Your task to perform on an android device: Go to internet settings Image 0: 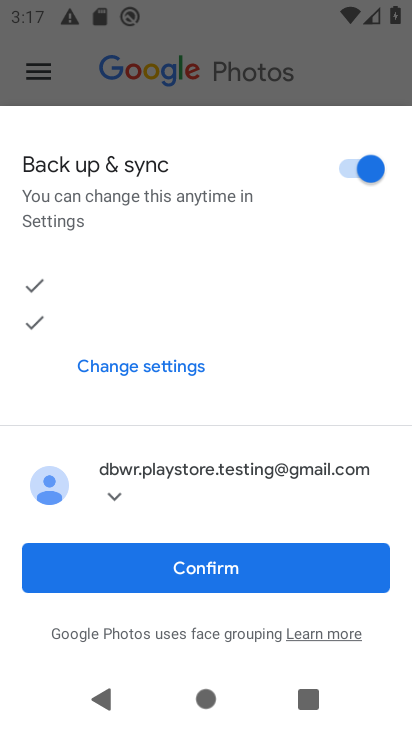
Step 0: press back button
Your task to perform on an android device: Go to internet settings Image 1: 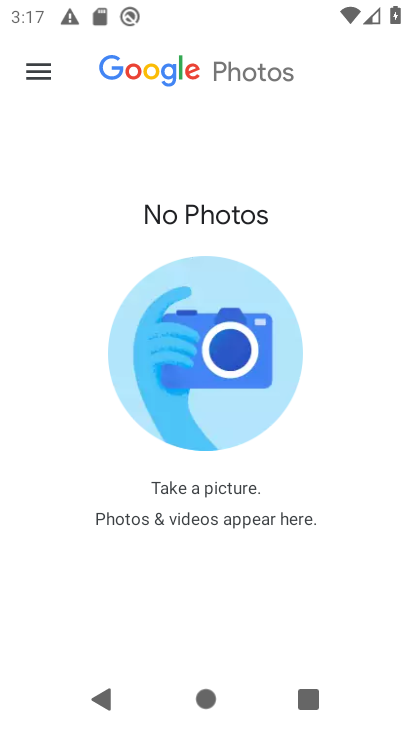
Step 1: press home button
Your task to perform on an android device: Go to internet settings Image 2: 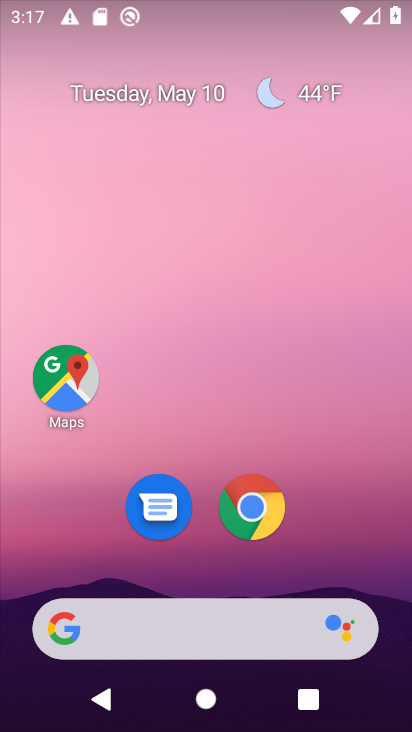
Step 2: drag from (222, 596) to (333, 61)
Your task to perform on an android device: Go to internet settings Image 3: 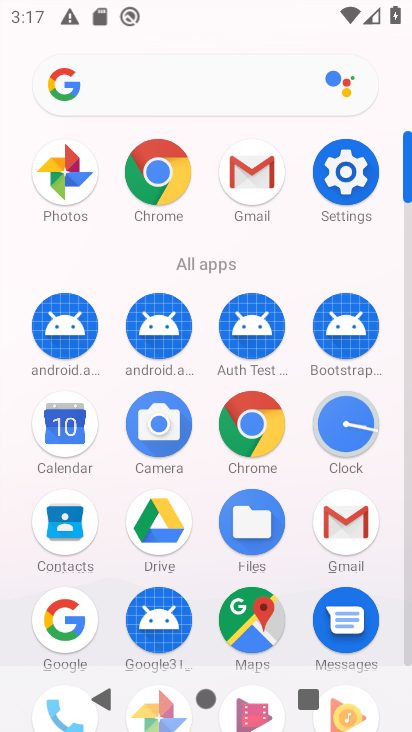
Step 3: click (351, 163)
Your task to perform on an android device: Go to internet settings Image 4: 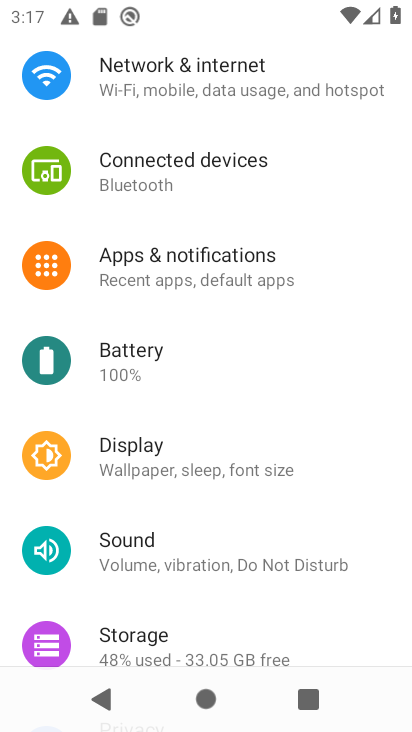
Step 4: drag from (262, 196) to (222, 449)
Your task to perform on an android device: Go to internet settings Image 5: 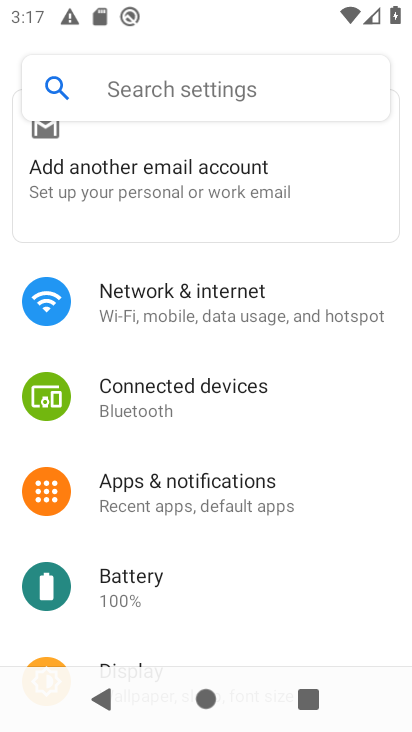
Step 5: click (240, 305)
Your task to perform on an android device: Go to internet settings Image 6: 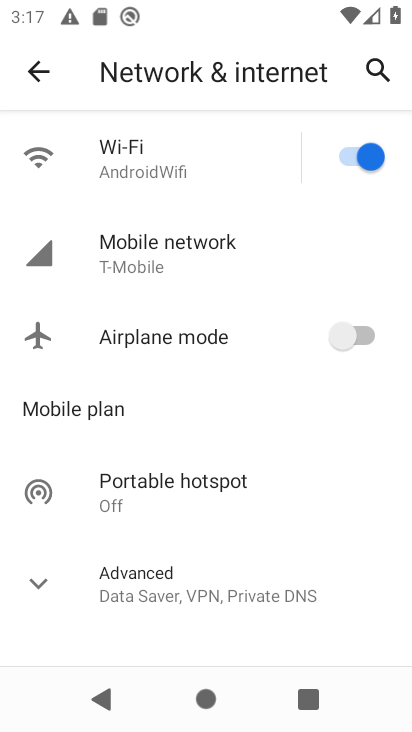
Step 6: click (231, 275)
Your task to perform on an android device: Go to internet settings Image 7: 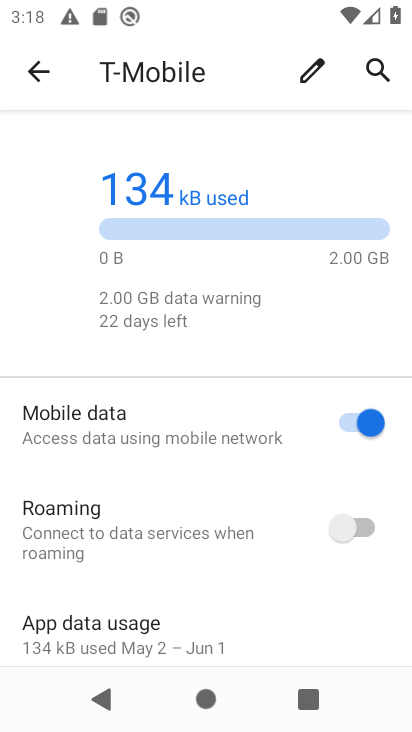
Step 7: task complete